Your task to perform on an android device: open chrome and create a bookmark for the current page Image 0: 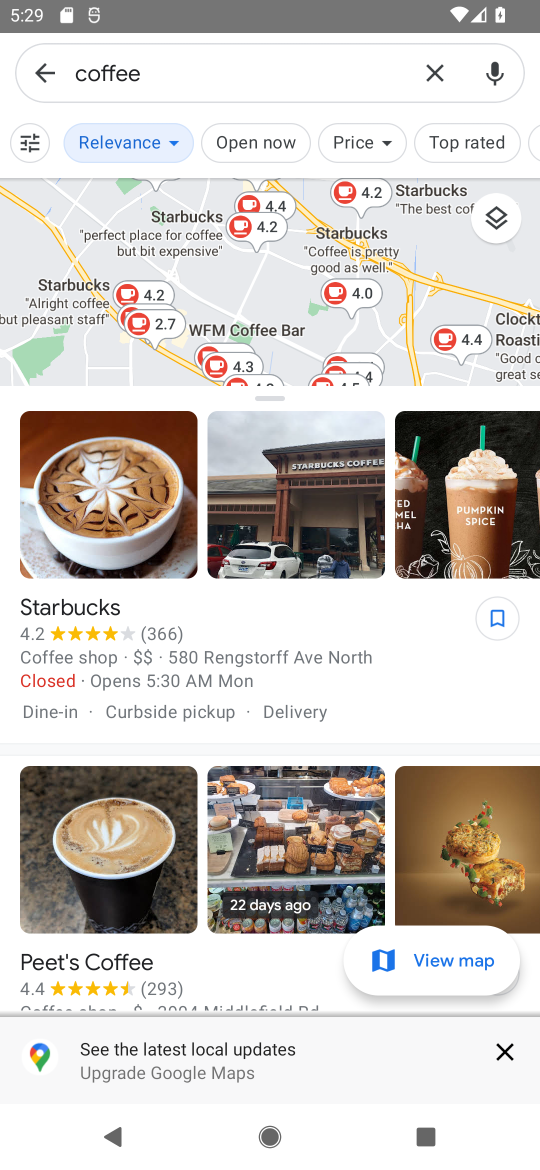
Step 0: press home button
Your task to perform on an android device: open chrome and create a bookmark for the current page Image 1: 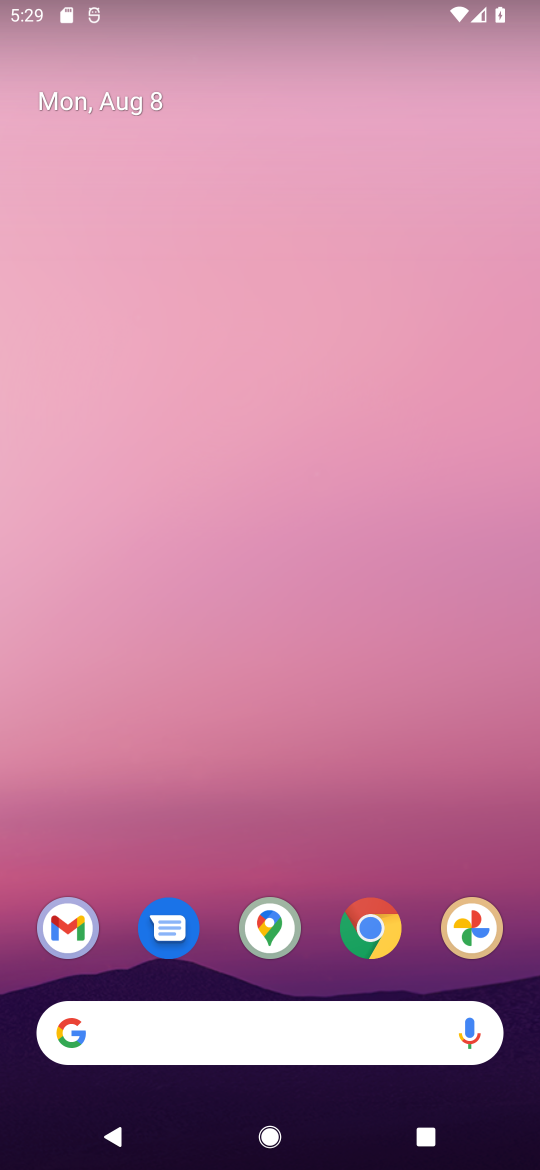
Step 1: drag from (266, 972) to (230, 39)
Your task to perform on an android device: open chrome and create a bookmark for the current page Image 2: 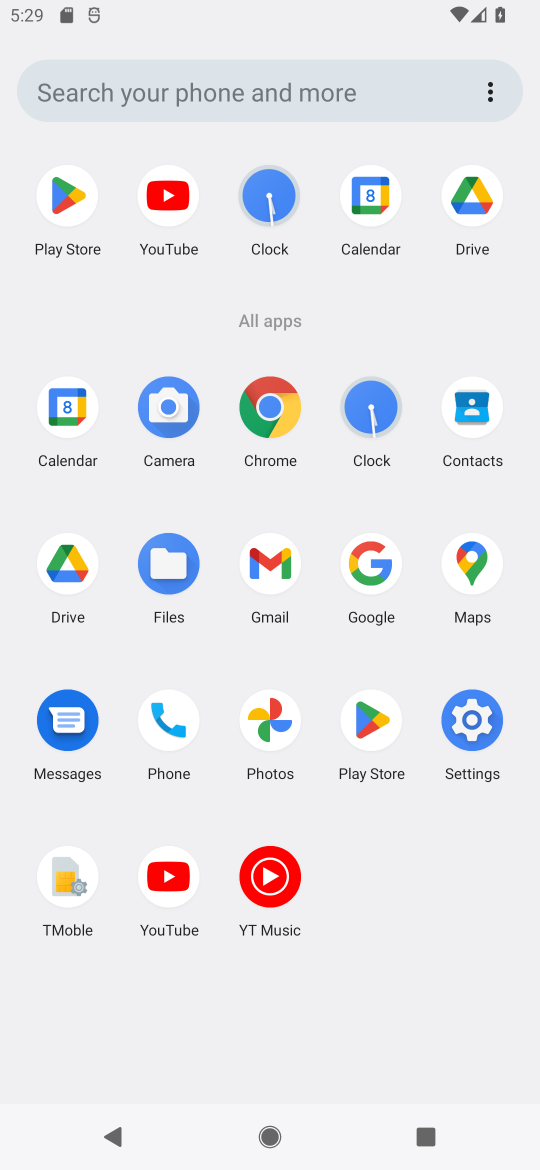
Step 2: click (265, 409)
Your task to perform on an android device: open chrome and create a bookmark for the current page Image 3: 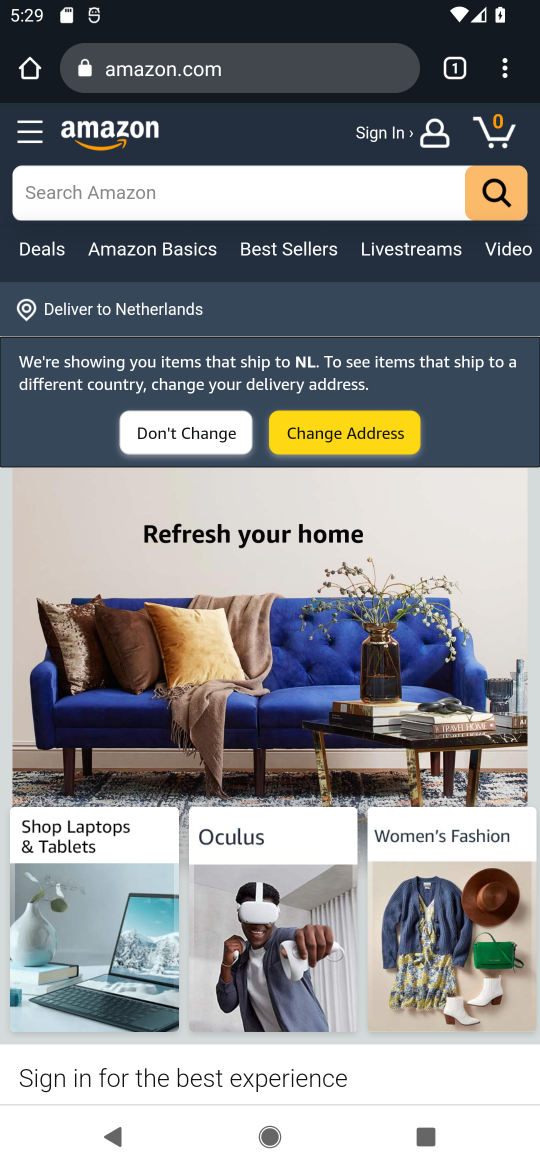
Step 3: click (513, 72)
Your task to perform on an android device: open chrome and create a bookmark for the current page Image 4: 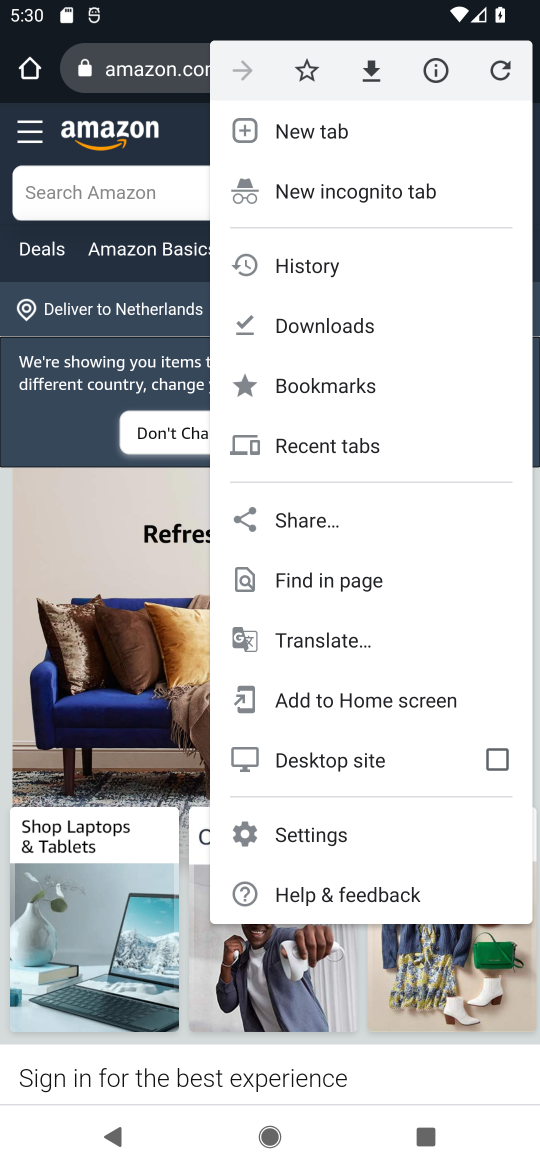
Step 4: click (309, 80)
Your task to perform on an android device: open chrome and create a bookmark for the current page Image 5: 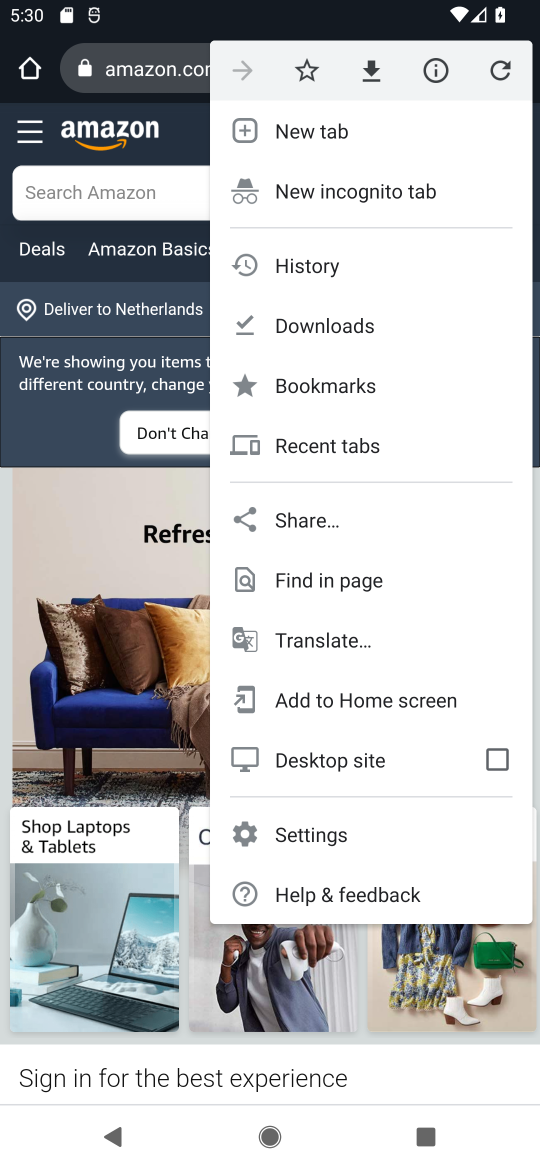
Step 5: click (306, 65)
Your task to perform on an android device: open chrome and create a bookmark for the current page Image 6: 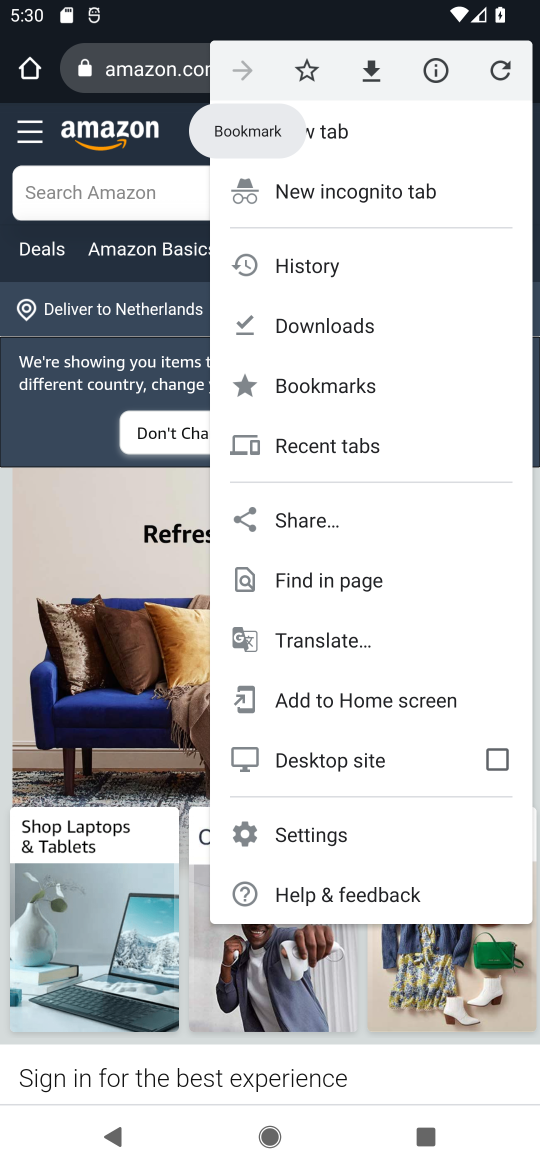
Step 6: click (307, 75)
Your task to perform on an android device: open chrome and create a bookmark for the current page Image 7: 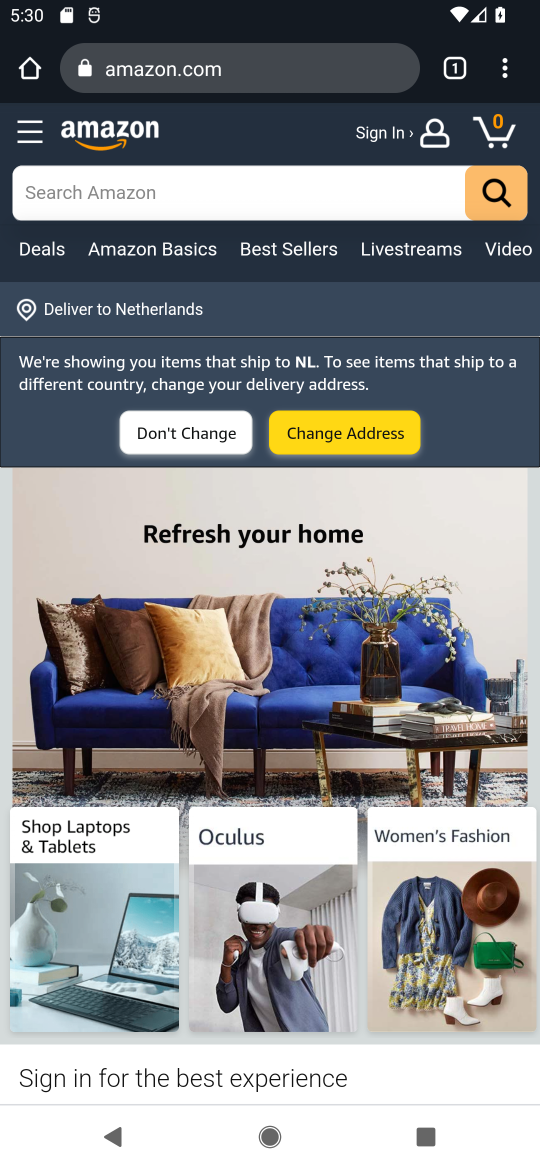
Step 7: task complete